Your task to perform on an android device: Open the stopwatch Image 0: 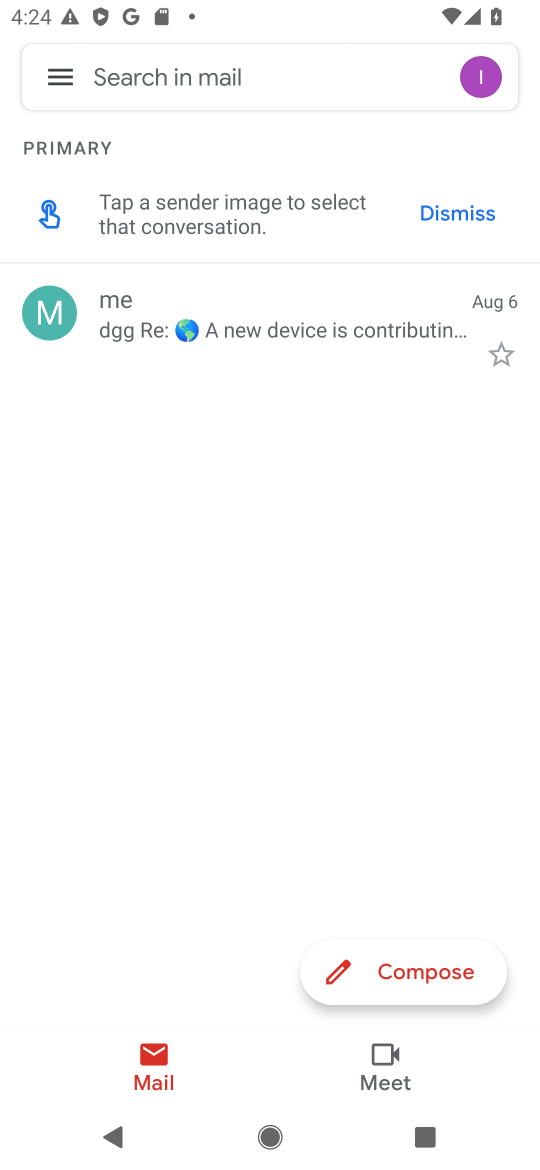
Step 0: press home button
Your task to perform on an android device: Open the stopwatch Image 1: 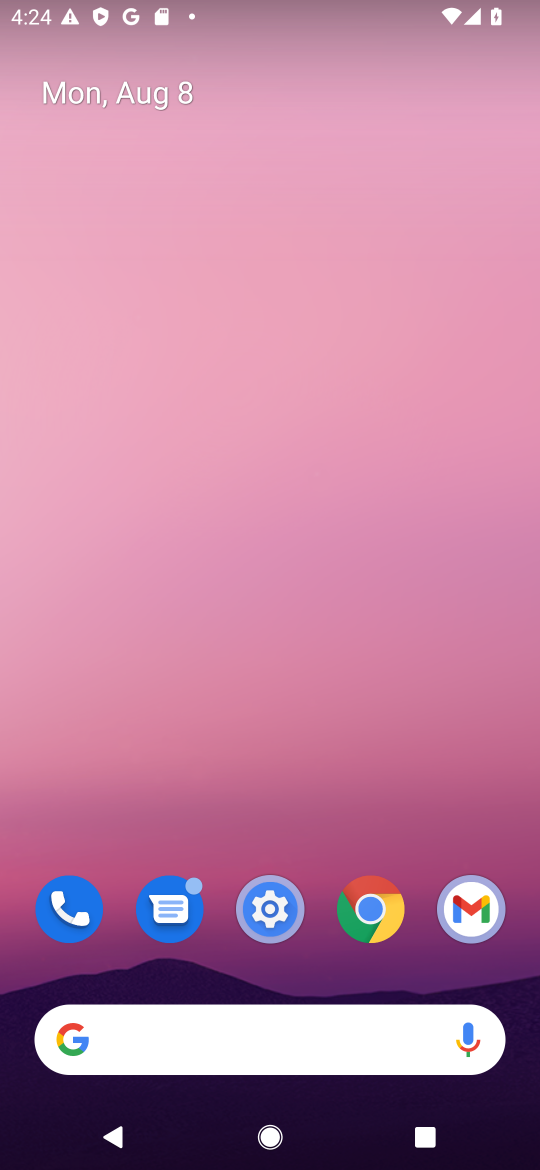
Step 1: drag from (321, 1001) to (537, 393)
Your task to perform on an android device: Open the stopwatch Image 2: 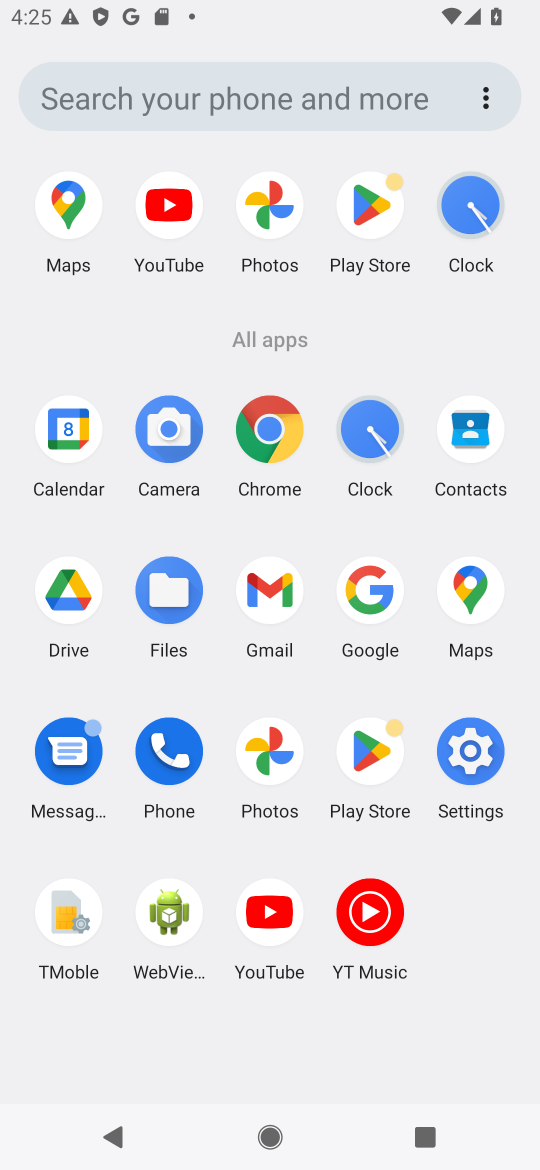
Step 2: click (366, 424)
Your task to perform on an android device: Open the stopwatch Image 3: 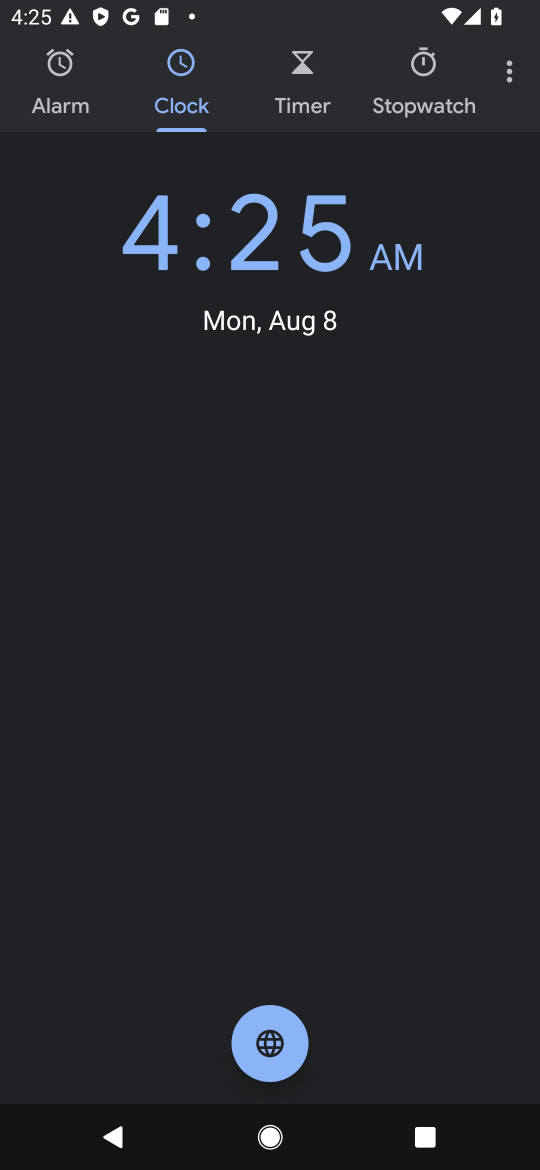
Step 3: click (410, 78)
Your task to perform on an android device: Open the stopwatch Image 4: 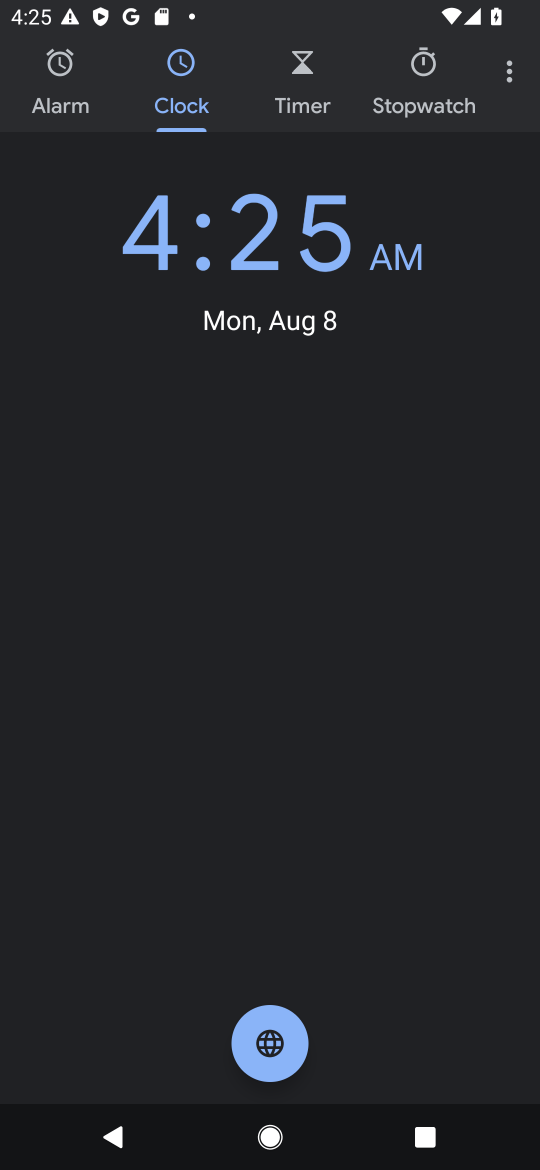
Step 4: click (430, 89)
Your task to perform on an android device: Open the stopwatch Image 5: 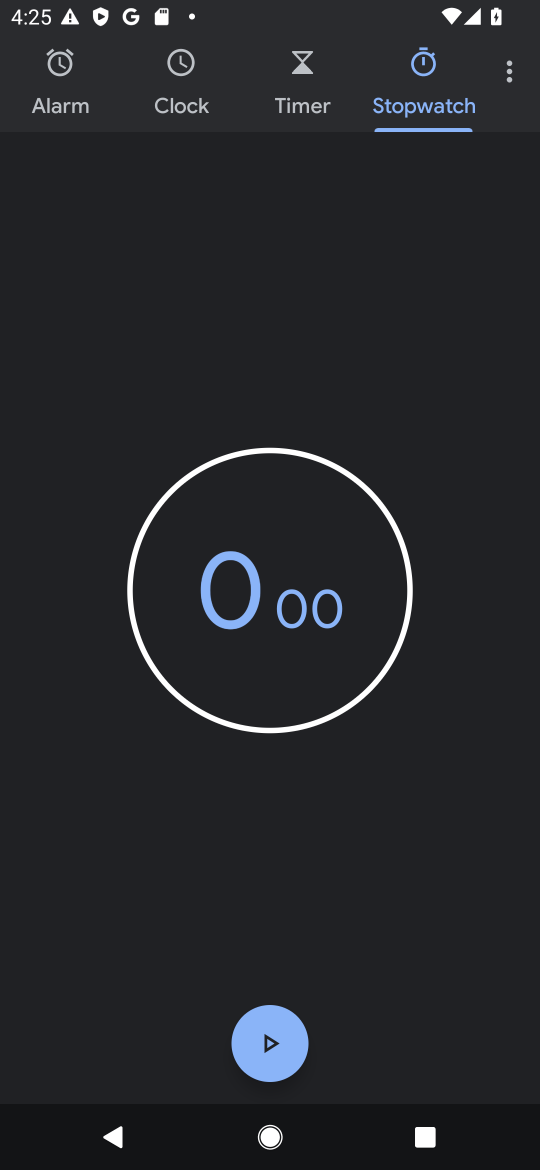
Step 5: task complete